Your task to perform on an android device: Go to sound settings Image 0: 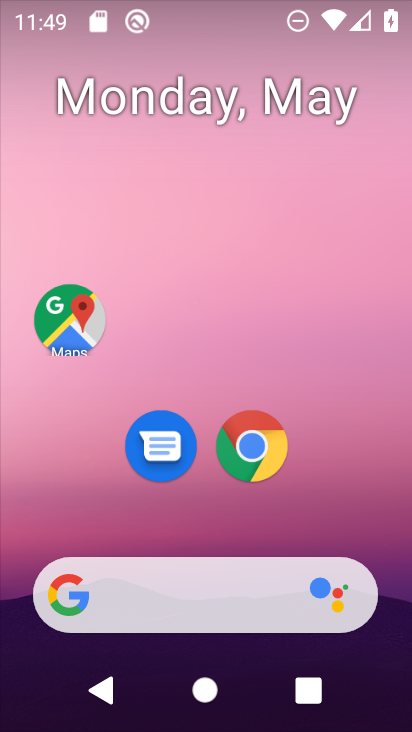
Step 0: drag from (330, 524) to (244, 119)
Your task to perform on an android device: Go to sound settings Image 1: 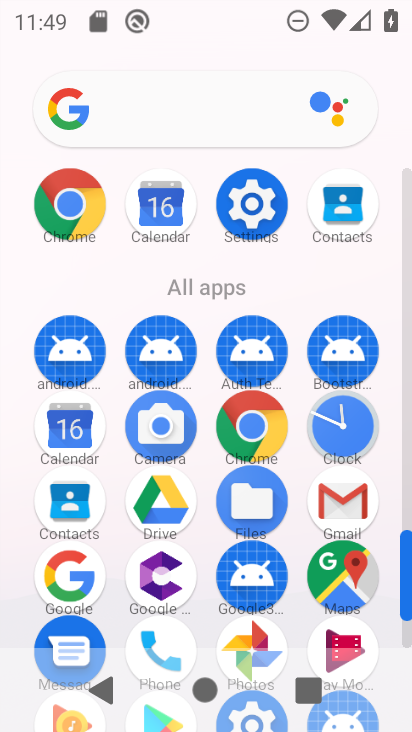
Step 1: click (254, 205)
Your task to perform on an android device: Go to sound settings Image 2: 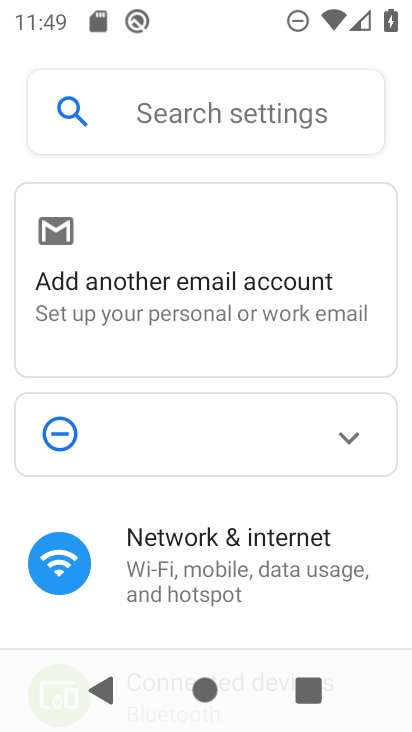
Step 2: drag from (262, 576) to (267, 417)
Your task to perform on an android device: Go to sound settings Image 3: 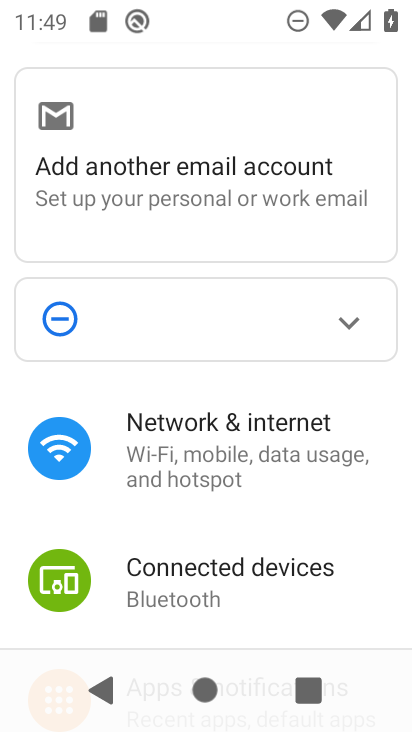
Step 3: drag from (216, 538) to (233, 411)
Your task to perform on an android device: Go to sound settings Image 4: 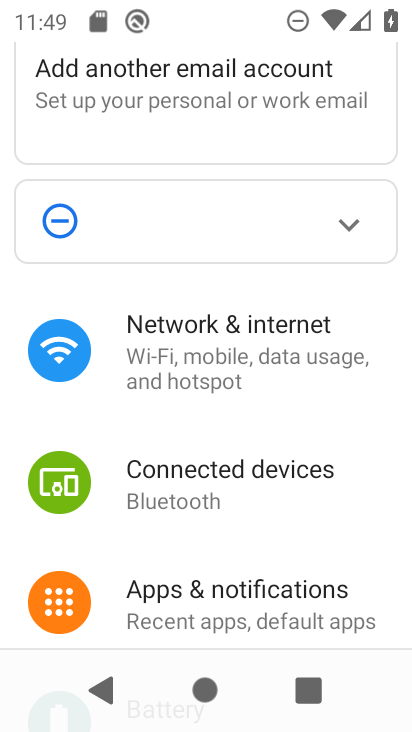
Step 4: drag from (200, 535) to (231, 430)
Your task to perform on an android device: Go to sound settings Image 5: 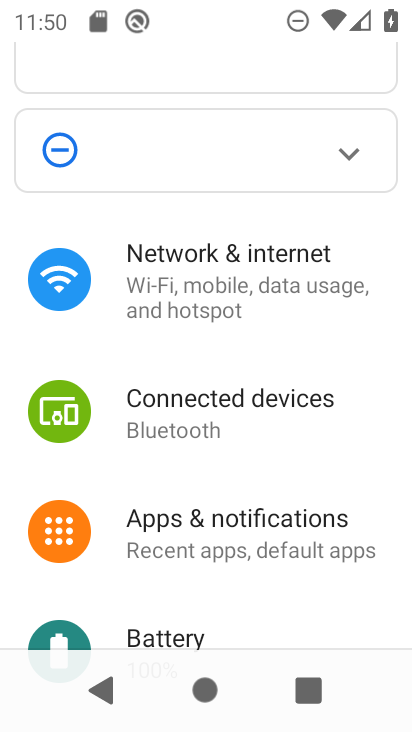
Step 5: drag from (214, 489) to (242, 372)
Your task to perform on an android device: Go to sound settings Image 6: 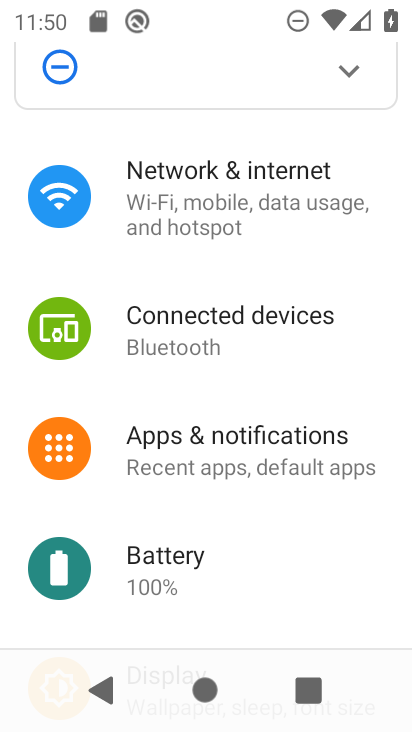
Step 6: drag from (188, 512) to (225, 411)
Your task to perform on an android device: Go to sound settings Image 7: 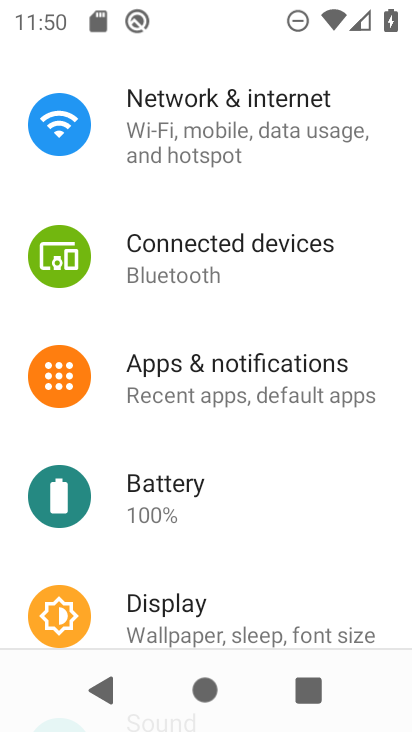
Step 7: drag from (188, 538) to (235, 392)
Your task to perform on an android device: Go to sound settings Image 8: 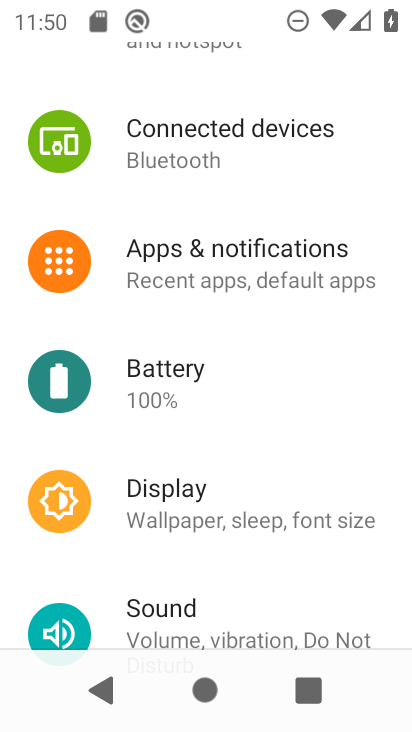
Step 8: drag from (183, 542) to (239, 418)
Your task to perform on an android device: Go to sound settings Image 9: 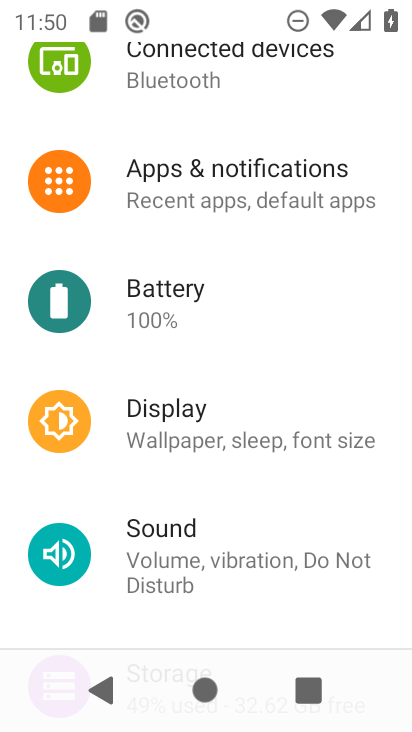
Step 9: click (187, 526)
Your task to perform on an android device: Go to sound settings Image 10: 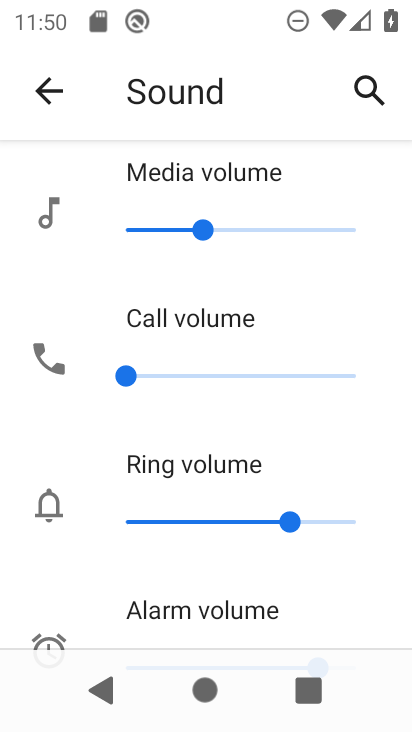
Step 10: task complete